Your task to perform on an android device: What's on my calendar tomorrow? Image 0: 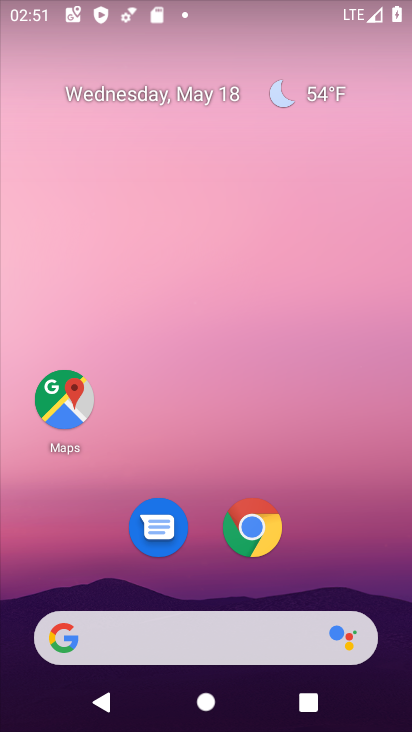
Step 0: drag from (221, 584) to (327, 2)
Your task to perform on an android device: What's on my calendar tomorrow? Image 1: 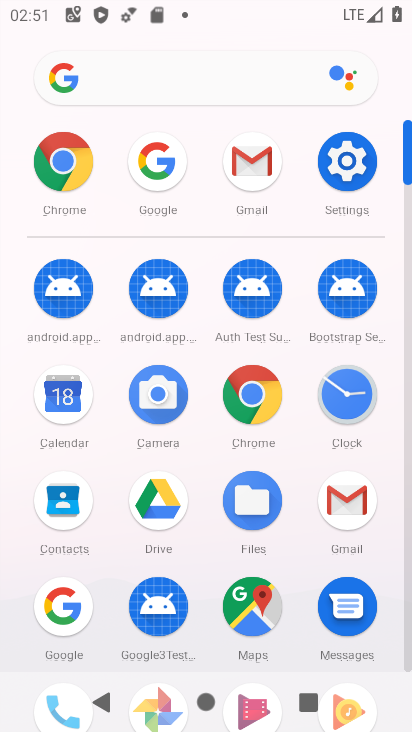
Step 1: click (52, 382)
Your task to perform on an android device: What's on my calendar tomorrow? Image 2: 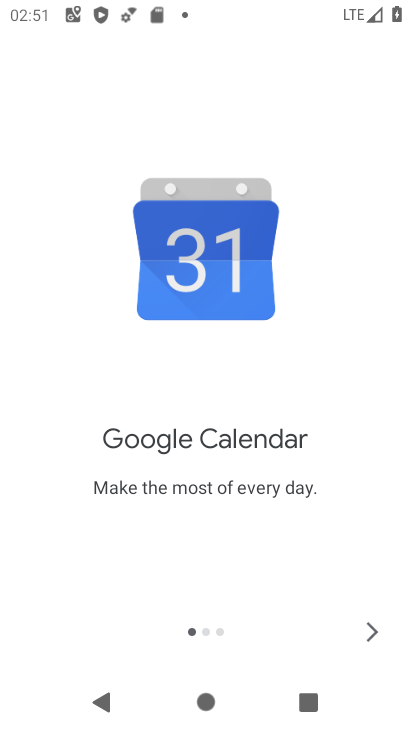
Step 2: click (370, 617)
Your task to perform on an android device: What's on my calendar tomorrow? Image 3: 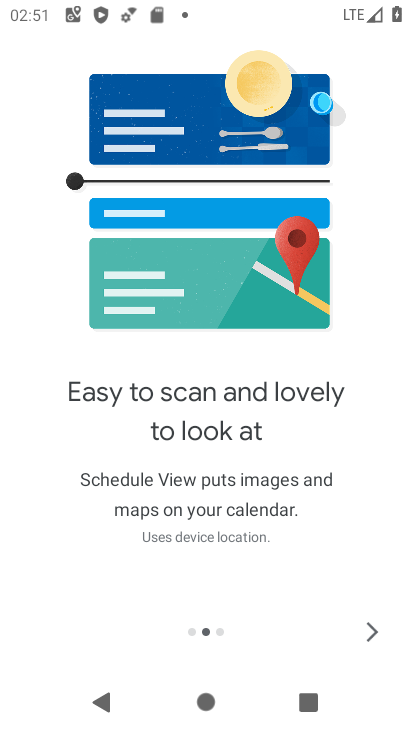
Step 3: click (370, 617)
Your task to perform on an android device: What's on my calendar tomorrow? Image 4: 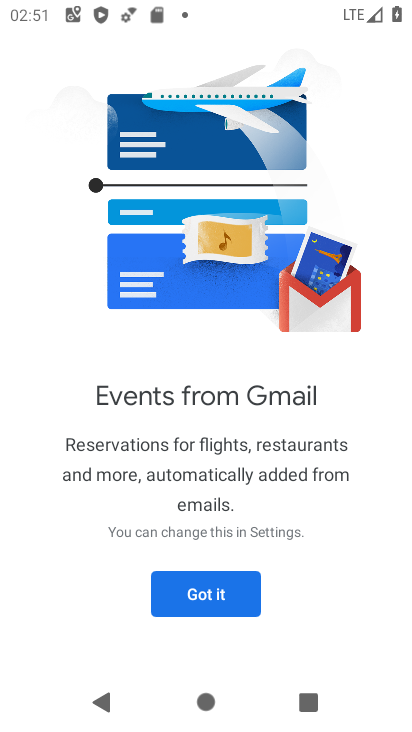
Step 4: click (154, 588)
Your task to perform on an android device: What's on my calendar tomorrow? Image 5: 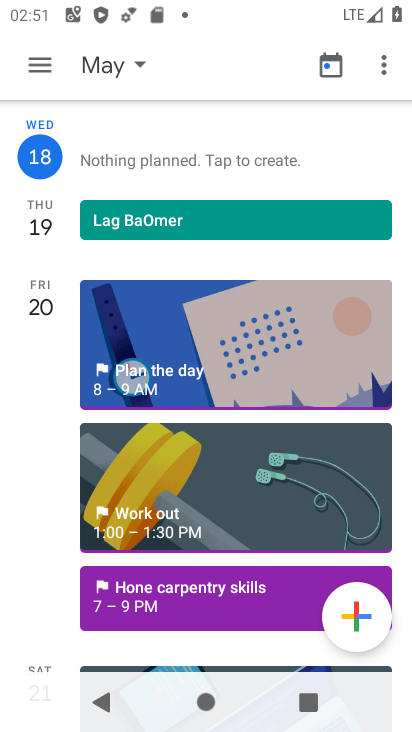
Step 5: click (48, 235)
Your task to perform on an android device: What's on my calendar tomorrow? Image 6: 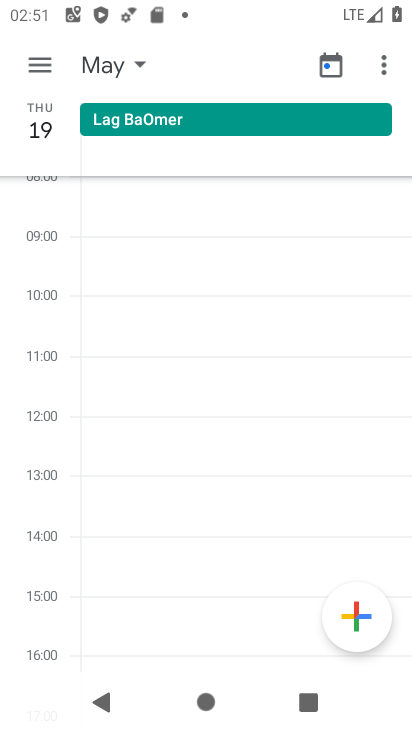
Step 6: task complete